Your task to perform on an android device: Open Chrome and go to settings Image 0: 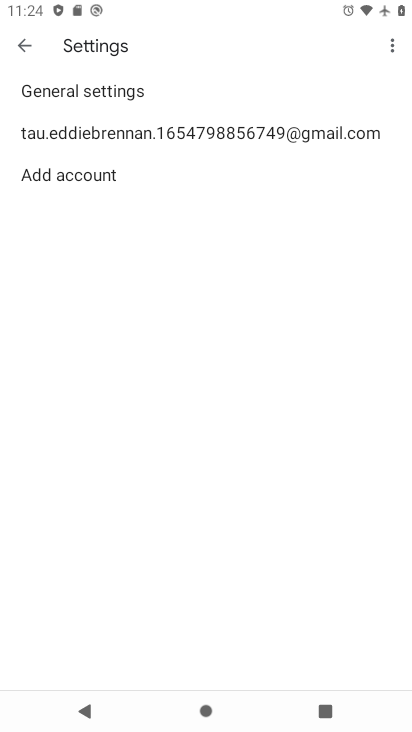
Step 0: press home button
Your task to perform on an android device: Open Chrome and go to settings Image 1: 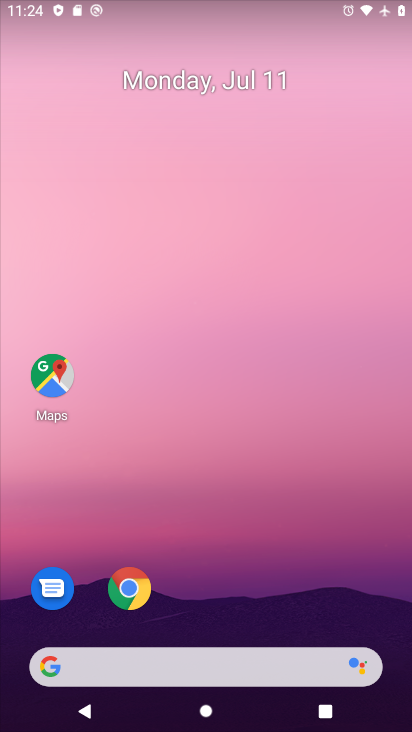
Step 1: click (122, 592)
Your task to perform on an android device: Open Chrome and go to settings Image 2: 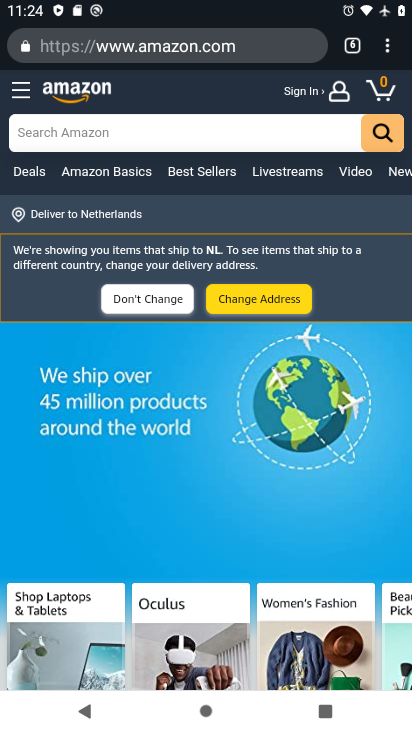
Step 2: task complete